Your task to perform on an android device: open wifi settings Image 0: 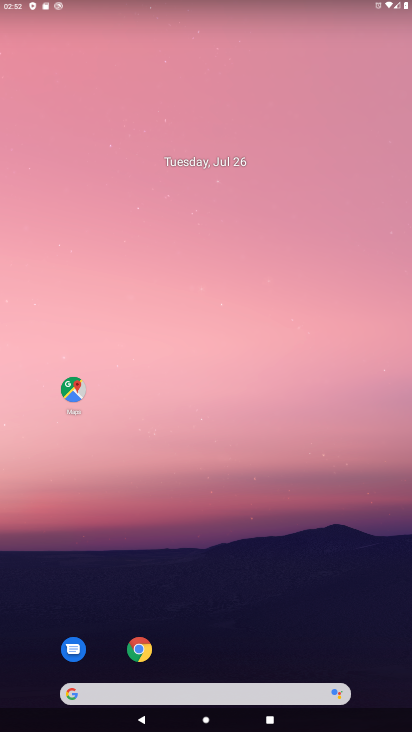
Step 0: drag from (216, 699) to (276, 22)
Your task to perform on an android device: open wifi settings Image 1: 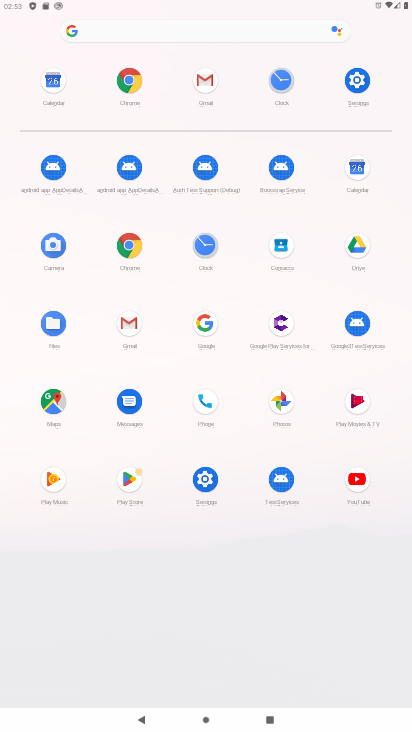
Step 1: click (357, 80)
Your task to perform on an android device: open wifi settings Image 2: 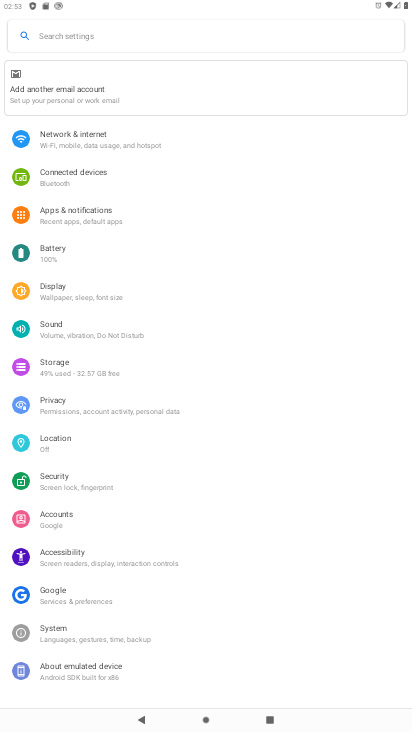
Step 2: click (99, 146)
Your task to perform on an android device: open wifi settings Image 3: 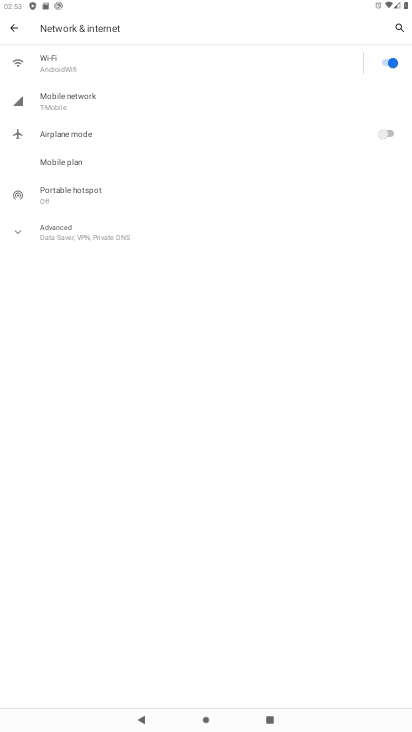
Step 3: click (57, 67)
Your task to perform on an android device: open wifi settings Image 4: 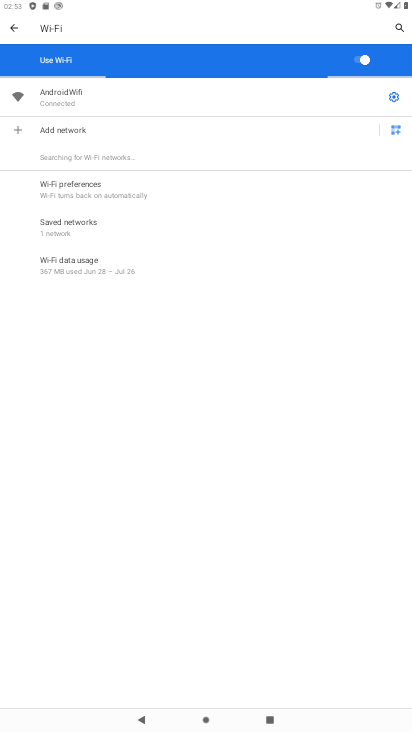
Step 4: click (395, 96)
Your task to perform on an android device: open wifi settings Image 5: 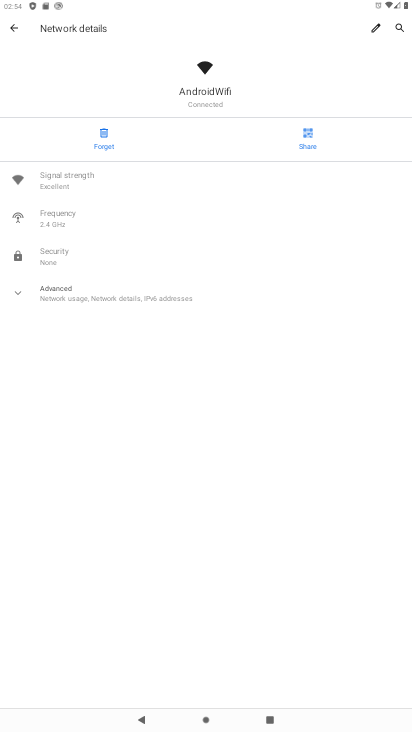
Step 5: task complete